Your task to perform on an android device: Open notification settings Image 0: 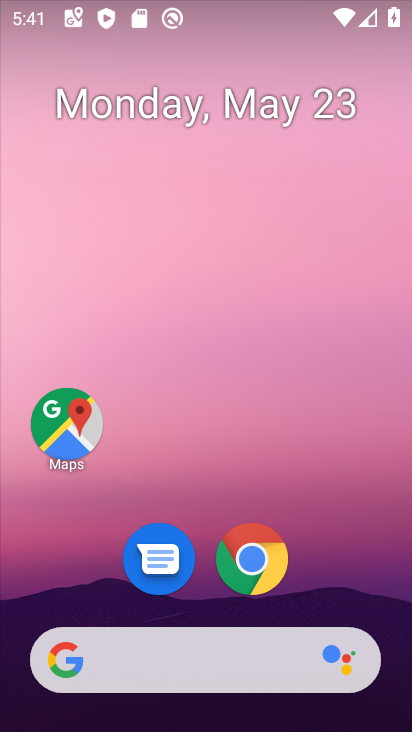
Step 0: drag from (316, 620) to (333, 4)
Your task to perform on an android device: Open notification settings Image 1: 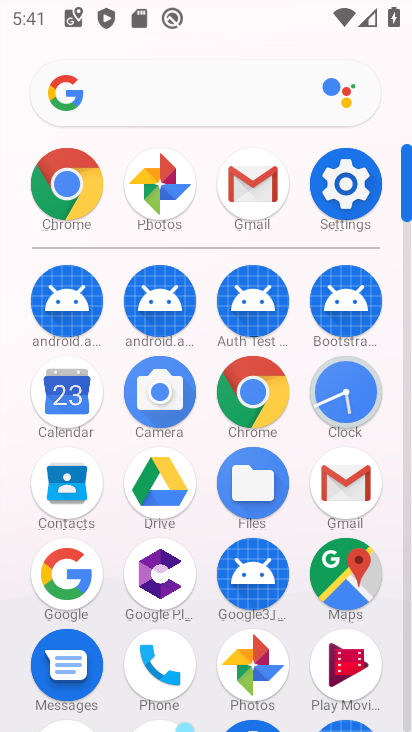
Step 1: click (364, 173)
Your task to perform on an android device: Open notification settings Image 2: 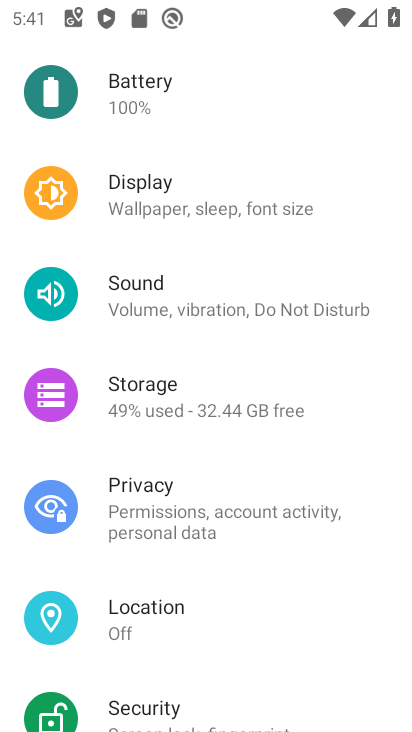
Step 2: drag from (253, 250) to (258, 719)
Your task to perform on an android device: Open notification settings Image 3: 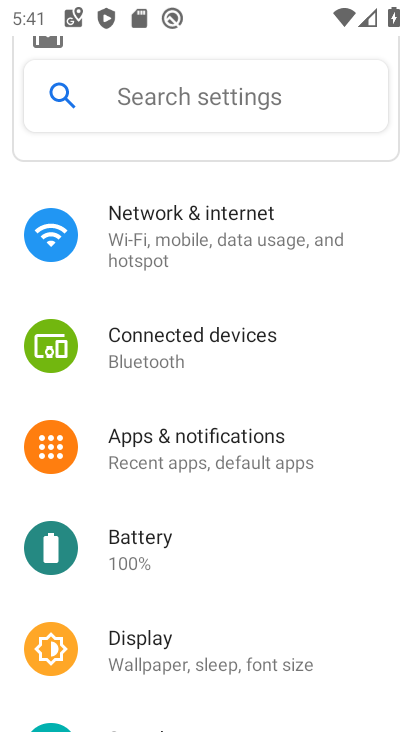
Step 3: click (194, 264)
Your task to perform on an android device: Open notification settings Image 4: 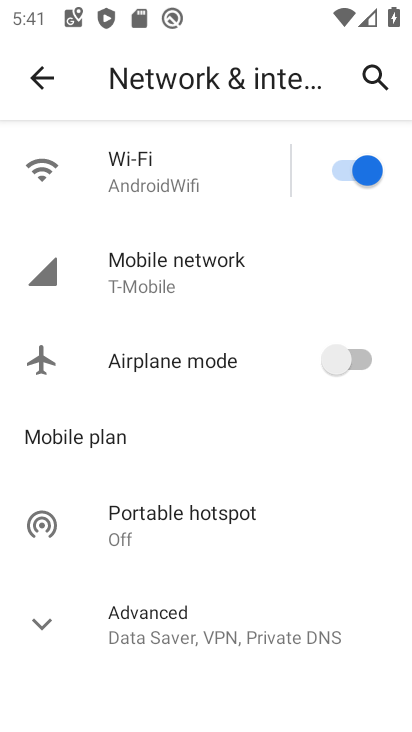
Step 4: press back button
Your task to perform on an android device: Open notification settings Image 5: 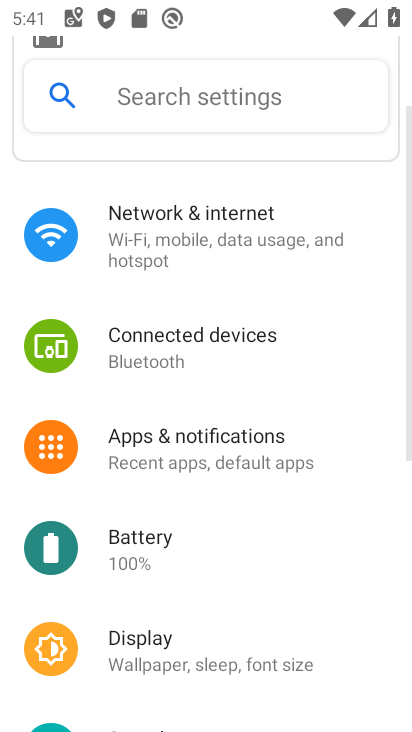
Step 5: click (217, 441)
Your task to perform on an android device: Open notification settings Image 6: 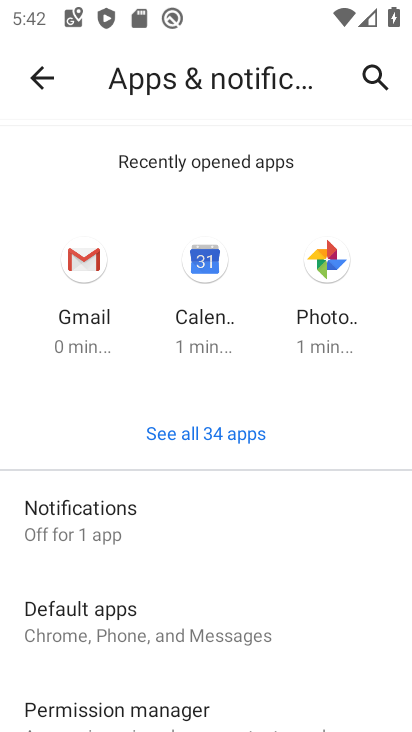
Step 6: task complete